Your task to perform on an android device: toggle notification dots Image 0: 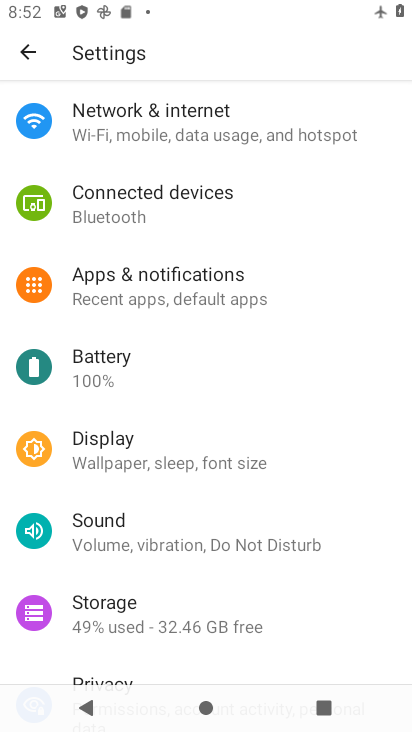
Step 0: click (221, 309)
Your task to perform on an android device: toggle notification dots Image 1: 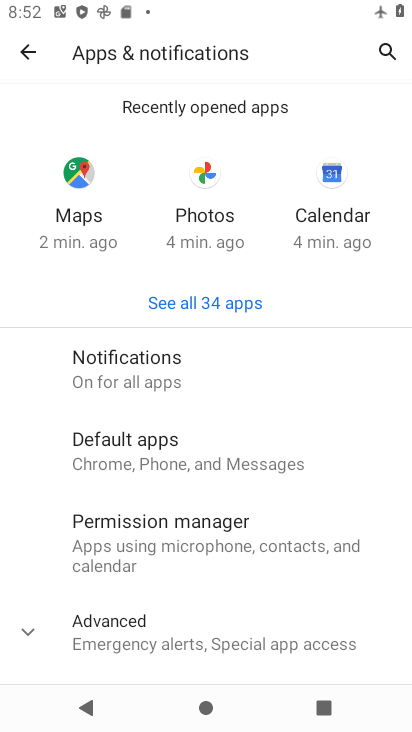
Step 1: task complete